Your task to perform on an android device: Is it going to rain this weekend? Image 0: 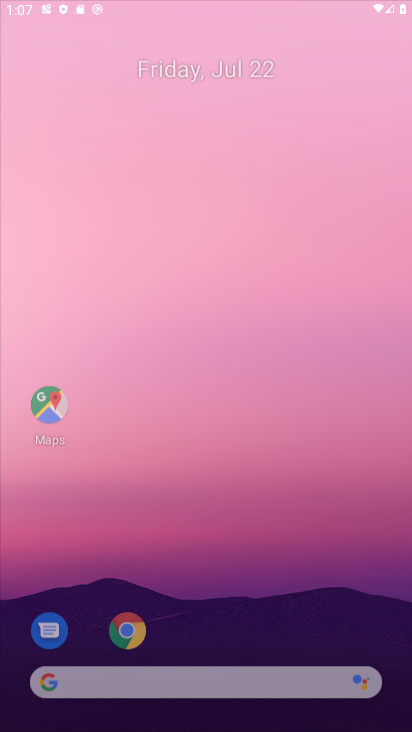
Step 0: press home button
Your task to perform on an android device: Is it going to rain this weekend? Image 1: 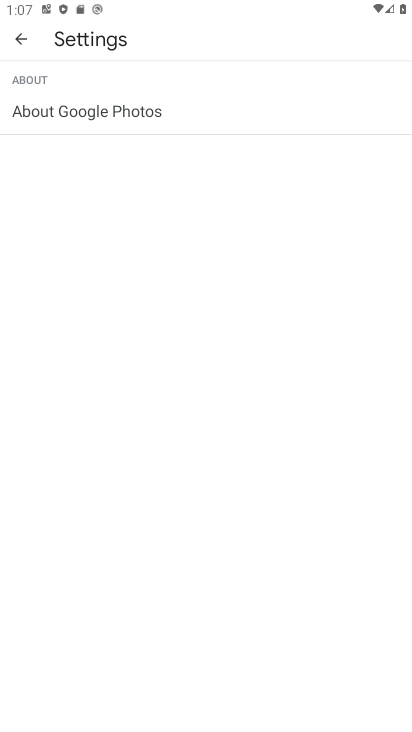
Step 1: press home button
Your task to perform on an android device: Is it going to rain this weekend? Image 2: 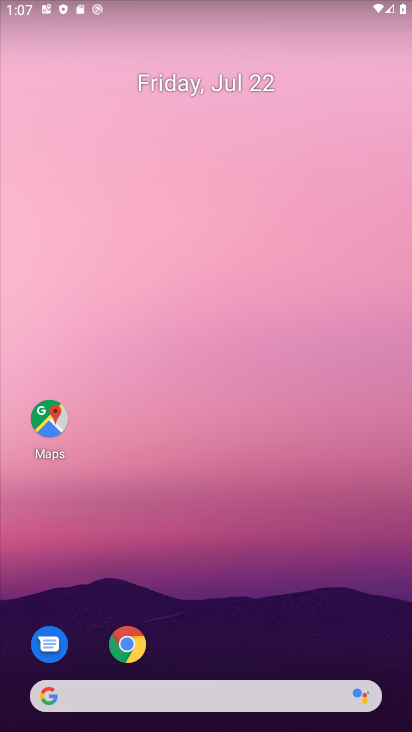
Step 2: press home button
Your task to perform on an android device: Is it going to rain this weekend? Image 3: 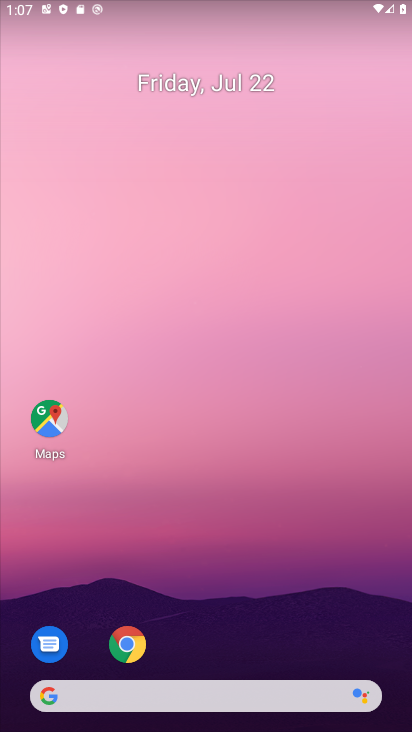
Step 3: click (188, 691)
Your task to perform on an android device: Is it going to rain this weekend? Image 4: 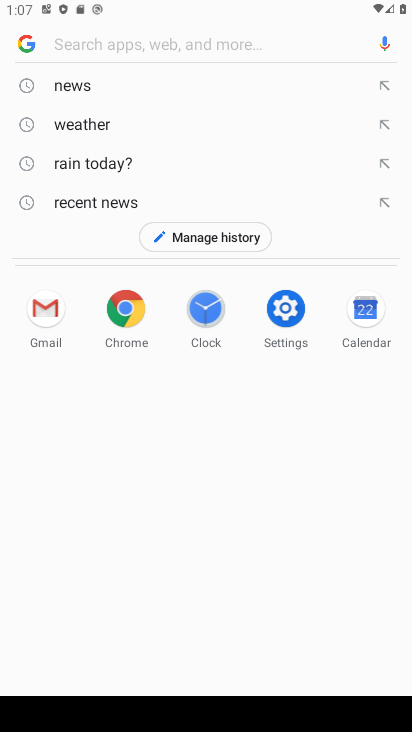
Step 4: type "Is it going to rain this weekend?"
Your task to perform on an android device: Is it going to rain this weekend? Image 5: 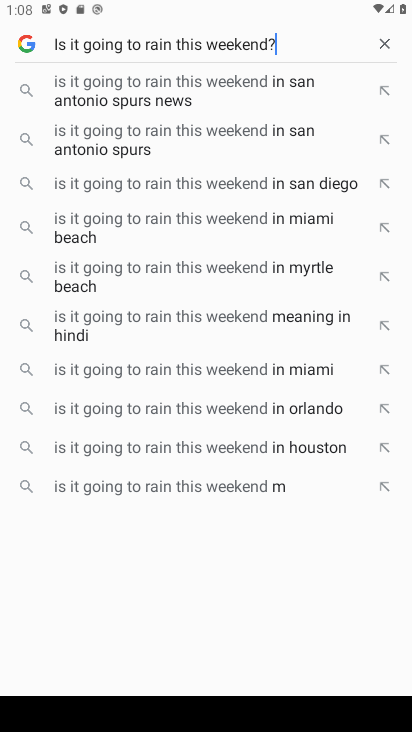
Step 5: click (266, 486)
Your task to perform on an android device: Is it going to rain this weekend? Image 6: 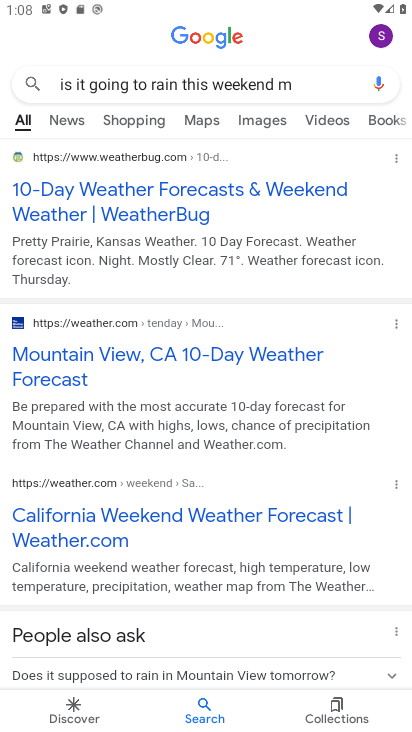
Step 6: drag from (174, 591) to (217, 637)
Your task to perform on an android device: Is it going to rain this weekend? Image 7: 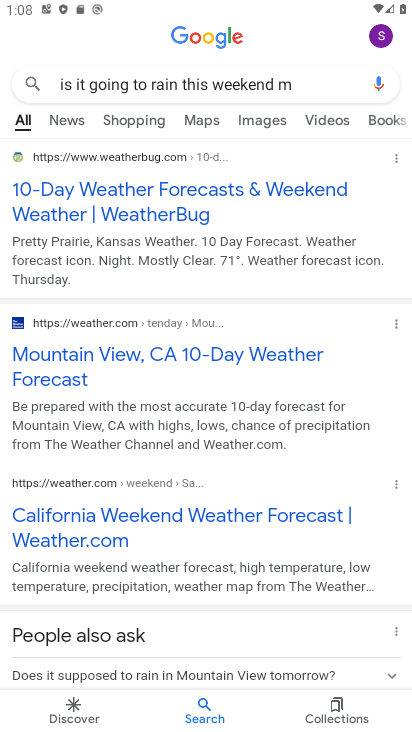
Step 7: click (119, 215)
Your task to perform on an android device: Is it going to rain this weekend? Image 8: 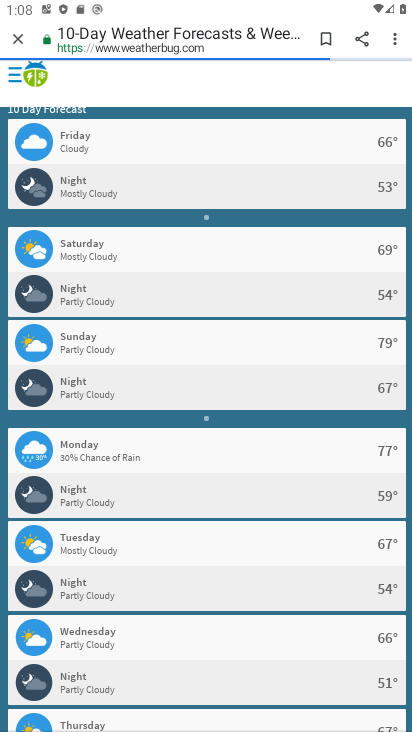
Step 8: task complete